Your task to perform on an android device: Open calendar and show me the third week of next month Image 0: 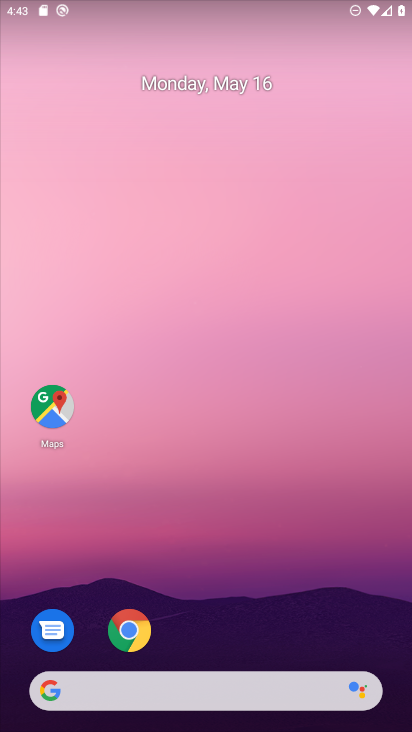
Step 0: drag from (290, 619) to (328, 17)
Your task to perform on an android device: Open calendar and show me the third week of next month Image 1: 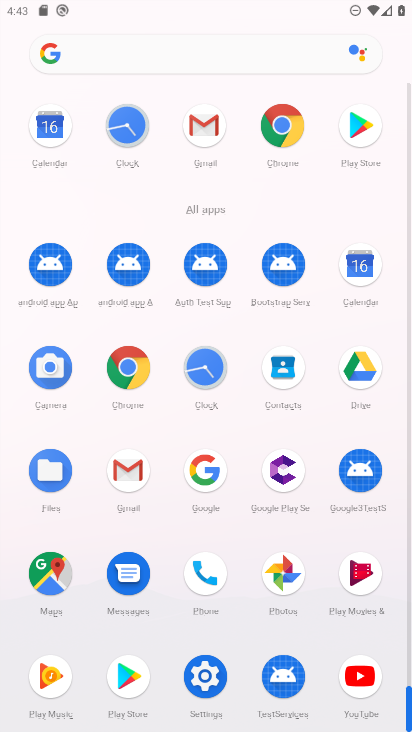
Step 1: click (361, 274)
Your task to perform on an android device: Open calendar and show me the third week of next month Image 2: 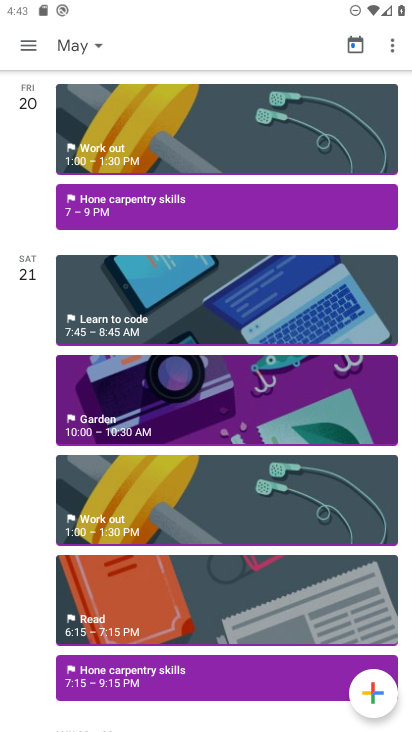
Step 2: click (87, 37)
Your task to perform on an android device: Open calendar and show me the third week of next month Image 3: 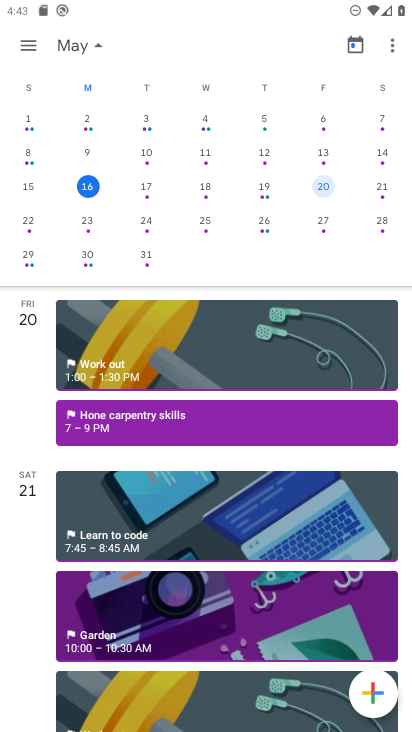
Step 3: drag from (398, 159) to (2, 145)
Your task to perform on an android device: Open calendar and show me the third week of next month Image 4: 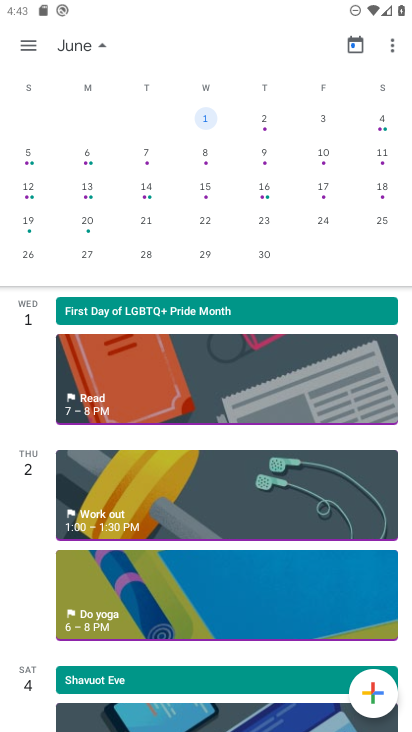
Step 4: click (206, 181)
Your task to perform on an android device: Open calendar and show me the third week of next month Image 5: 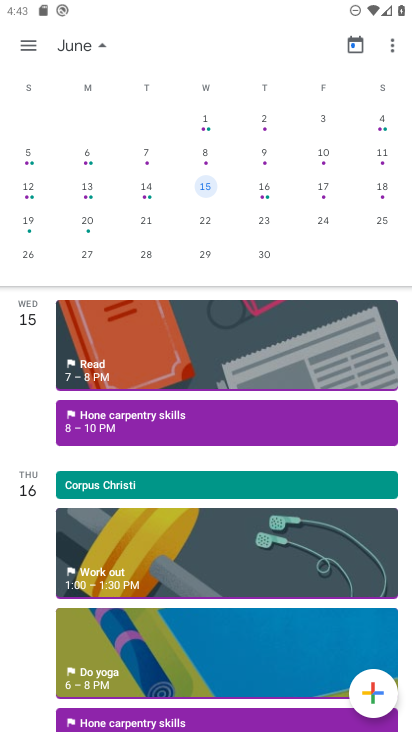
Step 5: task complete